Your task to perform on an android device: toggle notifications settings in the gmail app Image 0: 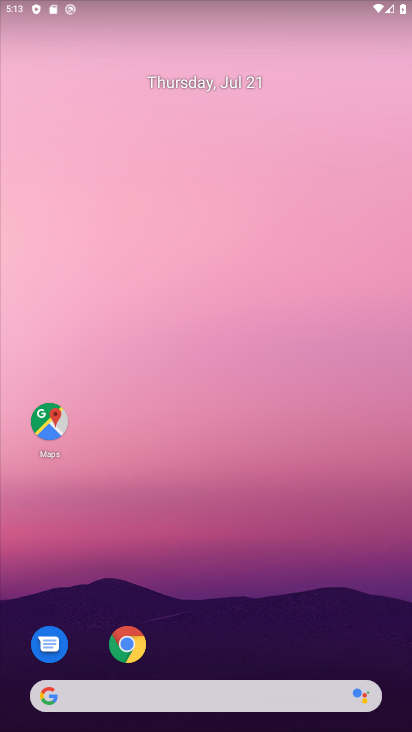
Step 0: drag from (267, 636) to (218, 224)
Your task to perform on an android device: toggle notifications settings in the gmail app Image 1: 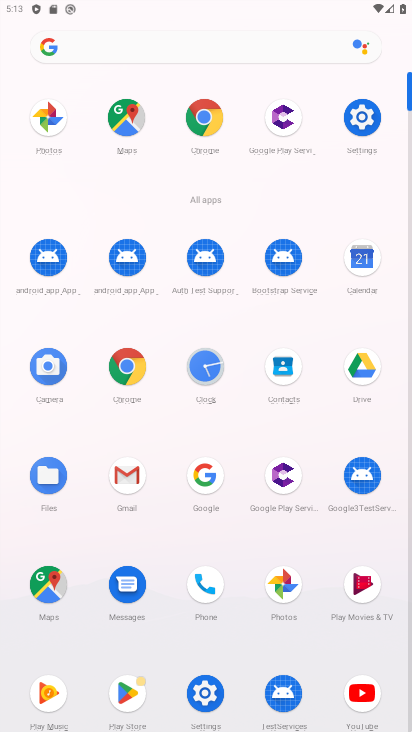
Step 1: click (210, 689)
Your task to perform on an android device: toggle notifications settings in the gmail app Image 2: 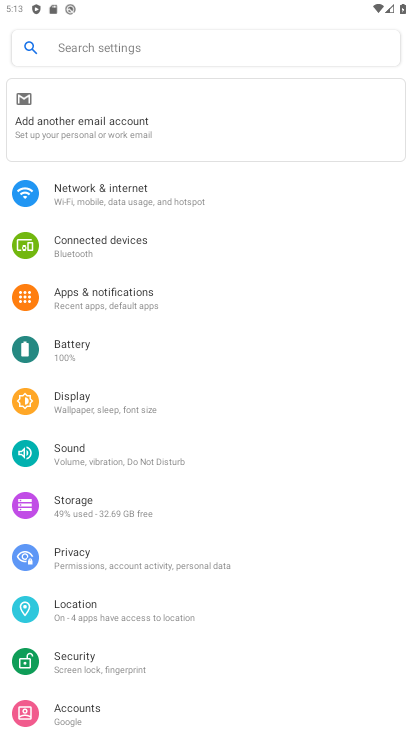
Step 2: press home button
Your task to perform on an android device: toggle notifications settings in the gmail app Image 3: 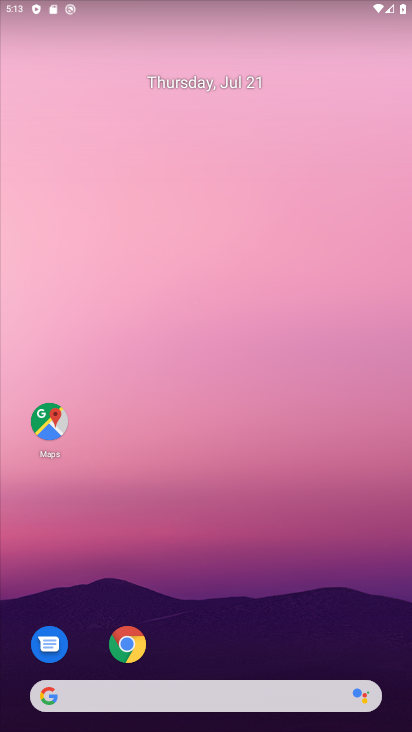
Step 3: drag from (289, 647) to (273, 234)
Your task to perform on an android device: toggle notifications settings in the gmail app Image 4: 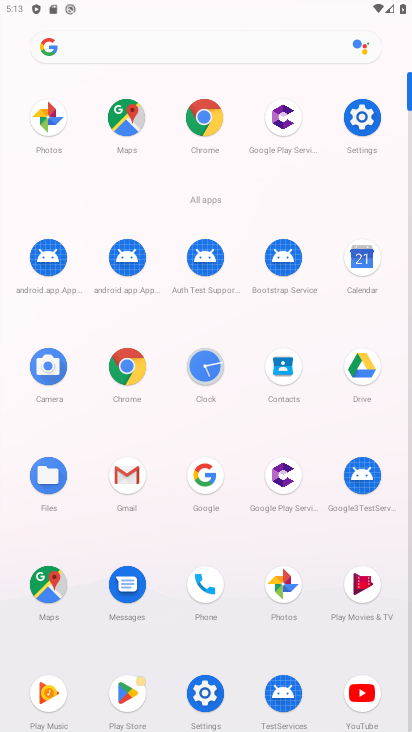
Step 4: click (125, 479)
Your task to perform on an android device: toggle notifications settings in the gmail app Image 5: 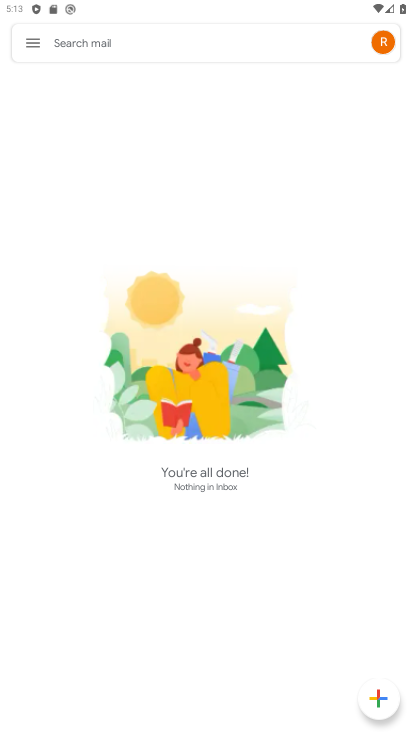
Step 5: click (32, 40)
Your task to perform on an android device: toggle notifications settings in the gmail app Image 6: 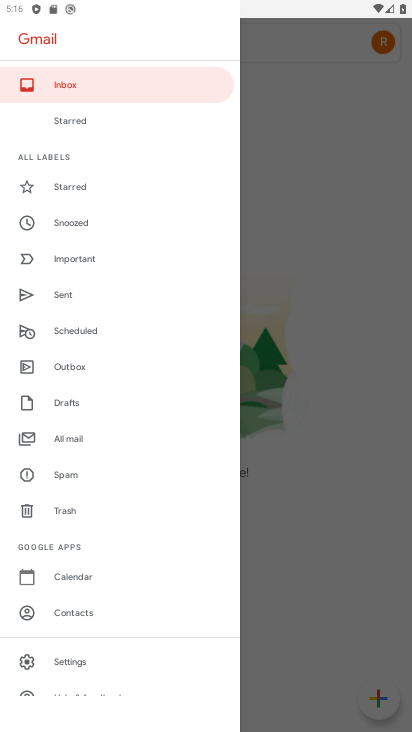
Step 6: task complete